Your task to perform on an android device: open app "Facebook Lite" Image 0: 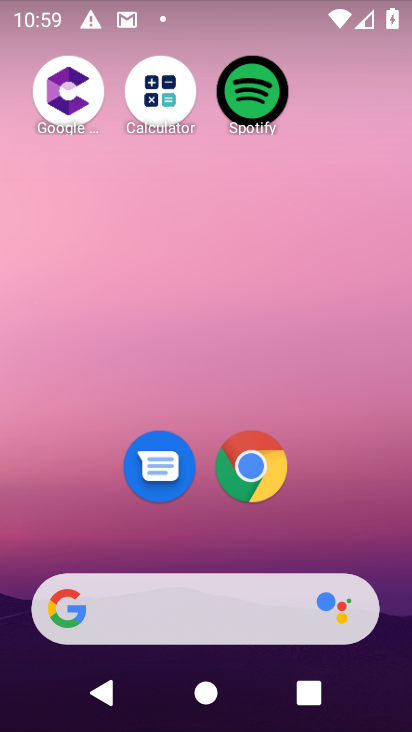
Step 0: drag from (225, 635) to (233, 221)
Your task to perform on an android device: open app "Facebook Lite" Image 1: 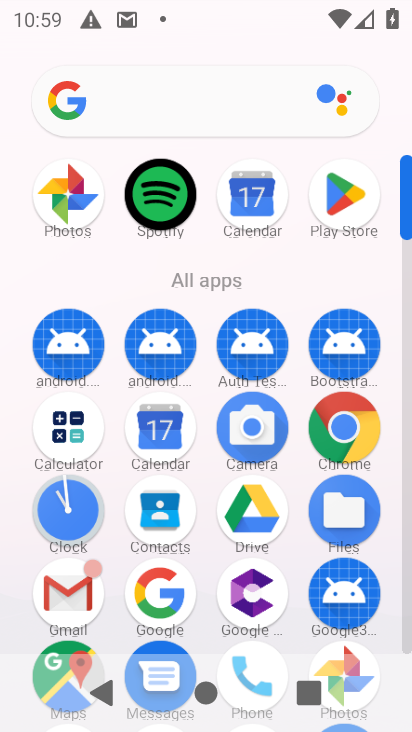
Step 1: task complete